Your task to perform on an android device: Search for vegetarian restaurants on Maps Image 0: 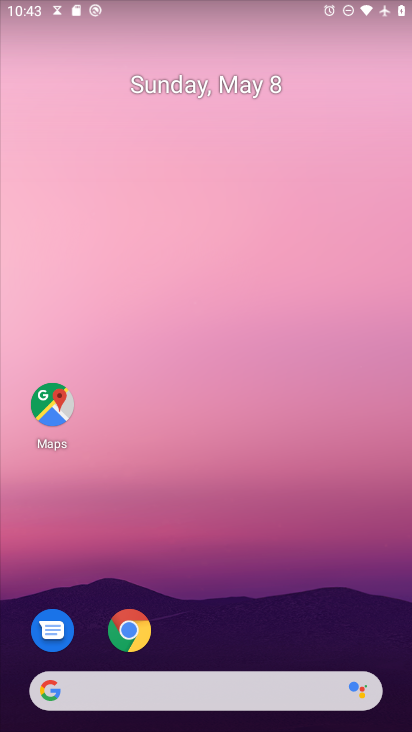
Step 0: drag from (153, 696) to (406, 72)
Your task to perform on an android device: Search for vegetarian restaurants on Maps Image 1: 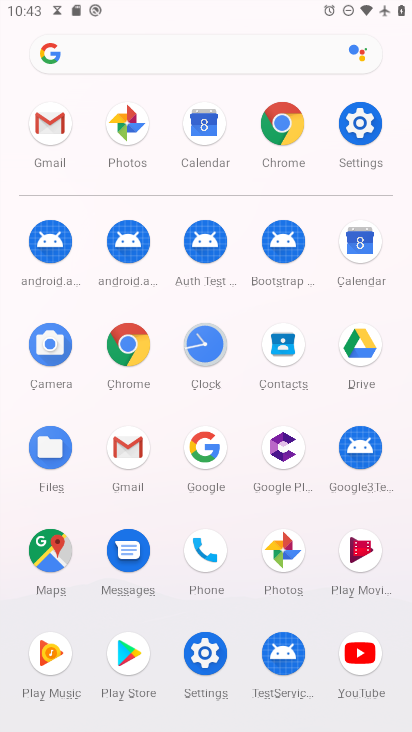
Step 1: click (52, 556)
Your task to perform on an android device: Search for vegetarian restaurants on Maps Image 2: 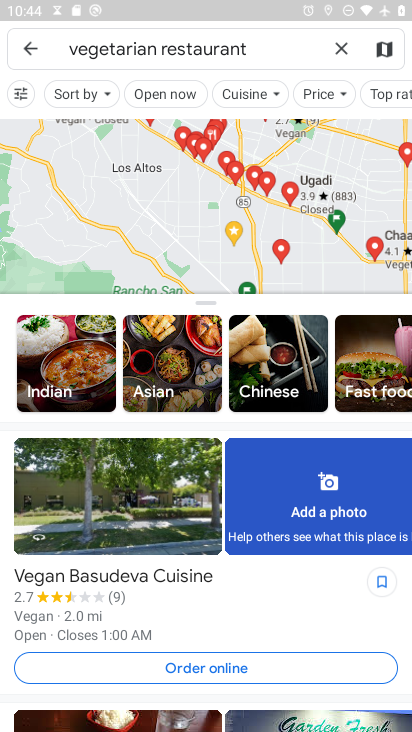
Step 2: task complete